Your task to perform on an android device: open a new tab in the chrome app Image 0: 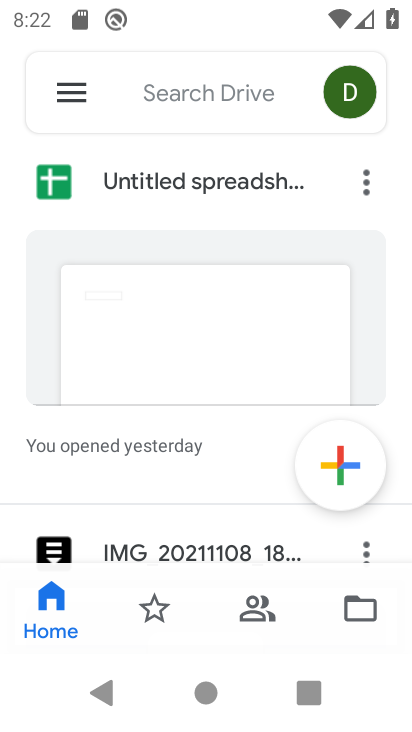
Step 0: press home button
Your task to perform on an android device: open a new tab in the chrome app Image 1: 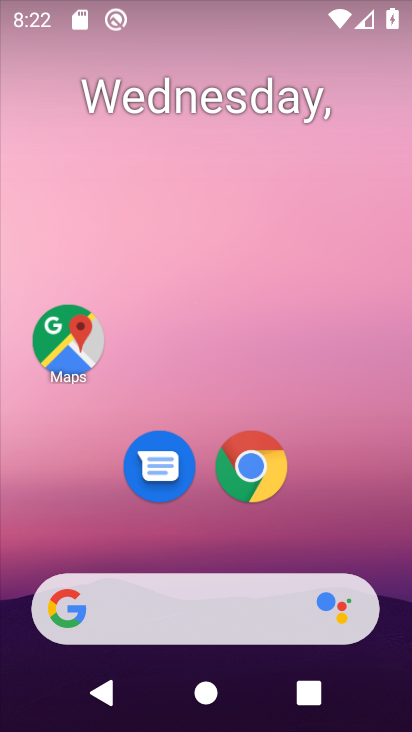
Step 1: click (260, 473)
Your task to perform on an android device: open a new tab in the chrome app Image 2: 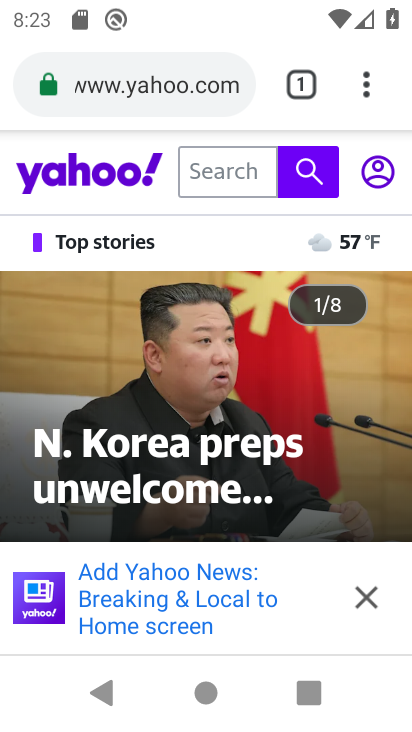
Step 2: click (368, 96)
Your task to perform on an android device: open a new tab in the chrome app Image 3: 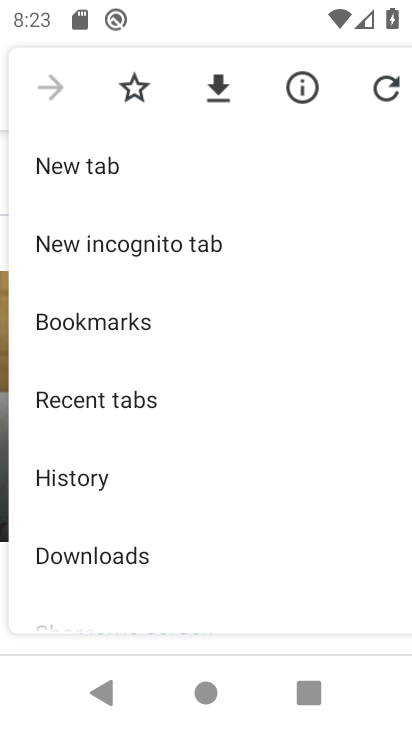
Step 3: click (86, 161)
Your task to perform on an android device: open a new tab in the chrome app Image 4: 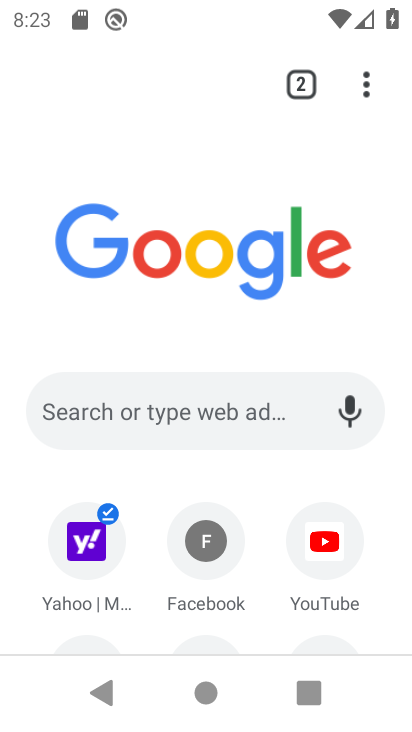
Step 4: task complete